Your task to perform on an android device: turn on notifications settings in the gmail app Image 0: 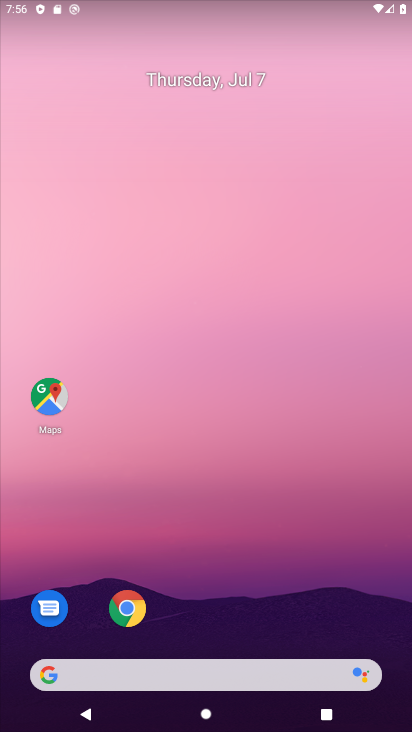
Step 0: drag from (373, 619) to (362, 150)
Your task to perform on an android device: turn on notifications settings in the gmail app Image 1: 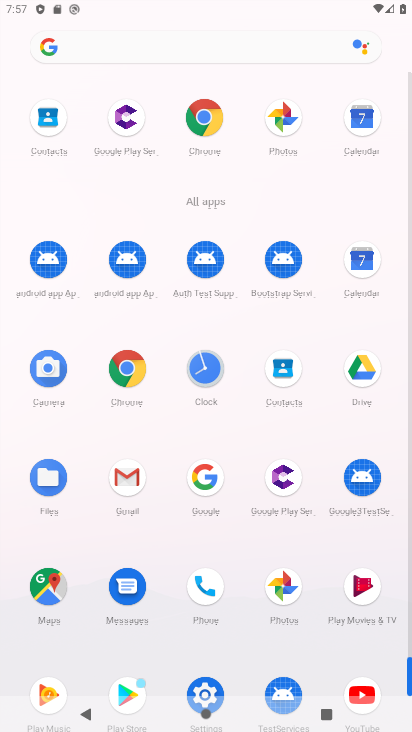
Step 1: click (133, 469)
Your task to perform on an android device: turn on notifications settings in the gmail app Image 2: 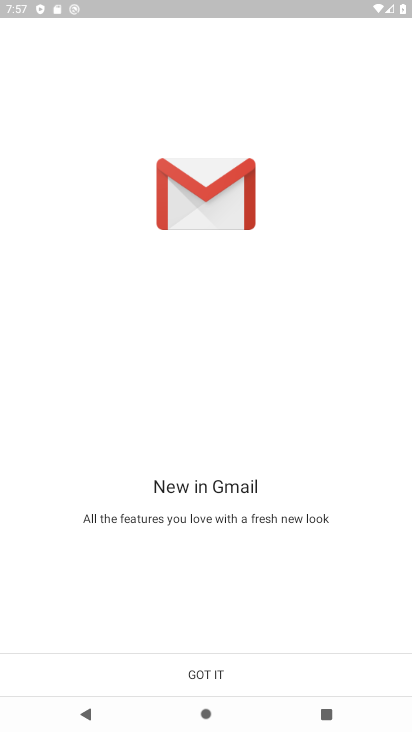
Step 2: click (204, 677)
Your task to perform on an android device: turn on notifications settings in the gmail app Image 3: 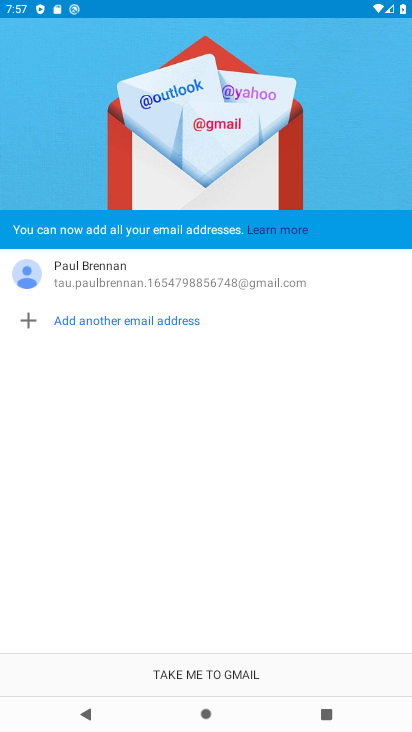
Step 3: click (204, 677)
Your task to perform on an android device: turn on notifications settings in the gmail app Image 4: 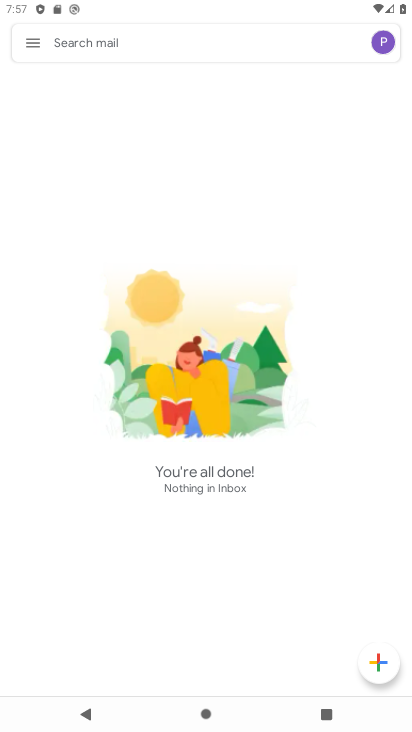
Step 4: click (36, 39)
Your task to perform on an android device: turn on notifications settings in the gmail app Image 5: 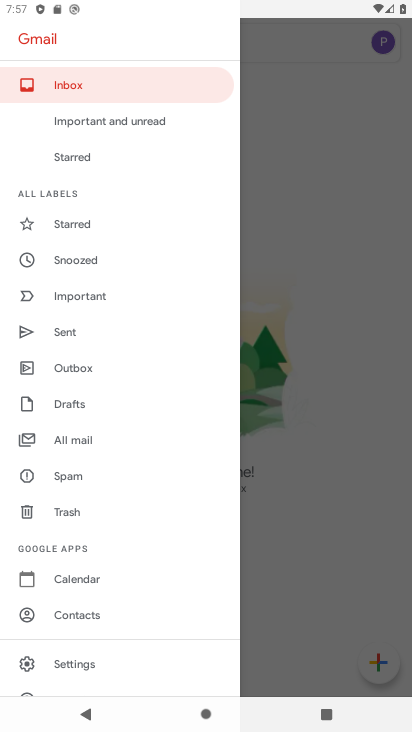
Step 5: drag from (151, 365) to (144, 249)
Your task to perform on an android device: turn on notifications settings in the gmail app Image 6: 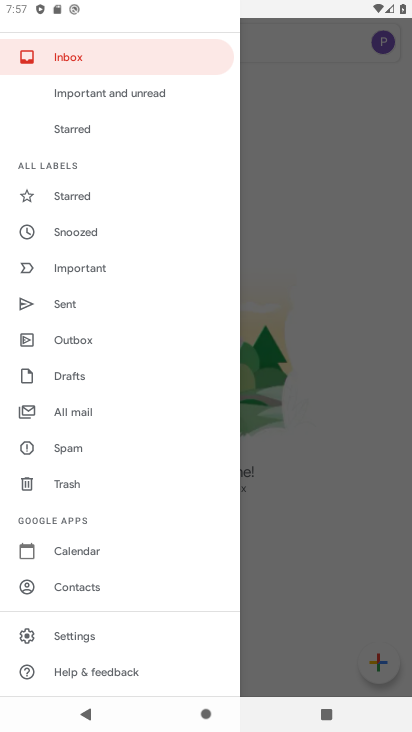
Step 6: click (108, 632)
Your task to perform on an android device: turn on notifications settings in the gmail app Image 7: 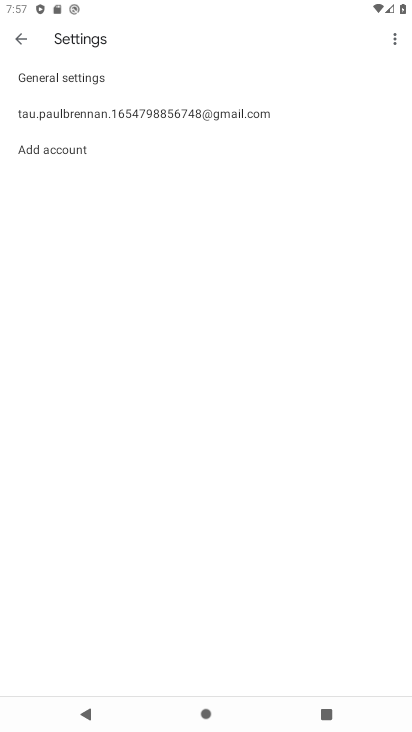
Step 7: click (225, 103)
Your task to perform on an android device: turn on notifications settings in the gmail app Image 8: 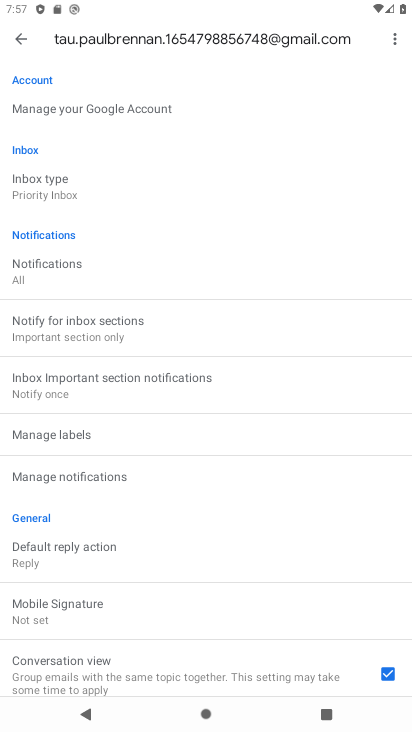
Step 8: drag from (275, 426) to (273, 265)
Your task to perform on an android device: turn on notifications settings in the gmail app Image 9: 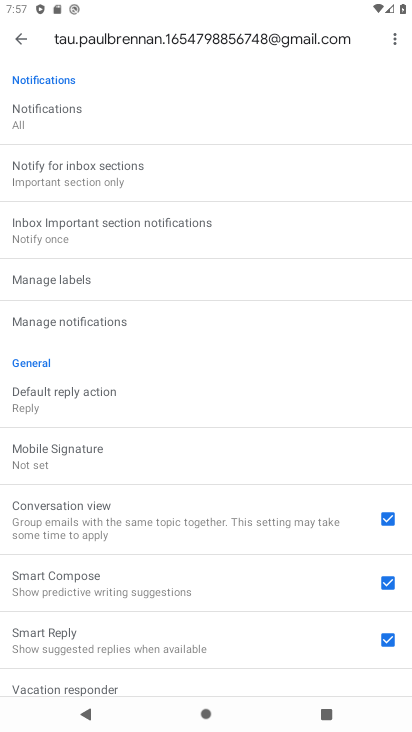
Step 9: drag from (263, 375) to (260, 192)
Your task to perform on an android device: turn on notifications settings in the gmail app Image 10: 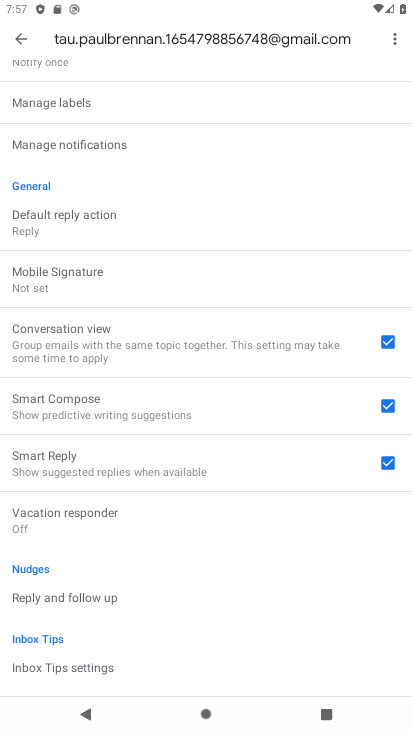
Step 10: click (155, 147)
Your task to perform on an android device: turn on notifications settings in the gmail app Image 11: 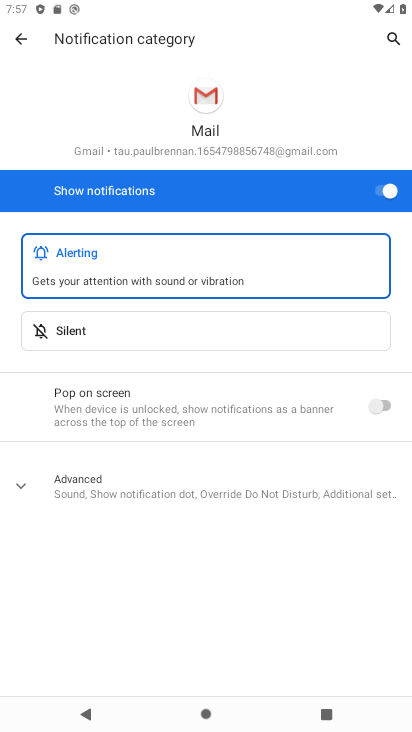
Step 11: task complete